Your task to perform on an android device: check out phone information Image 0: 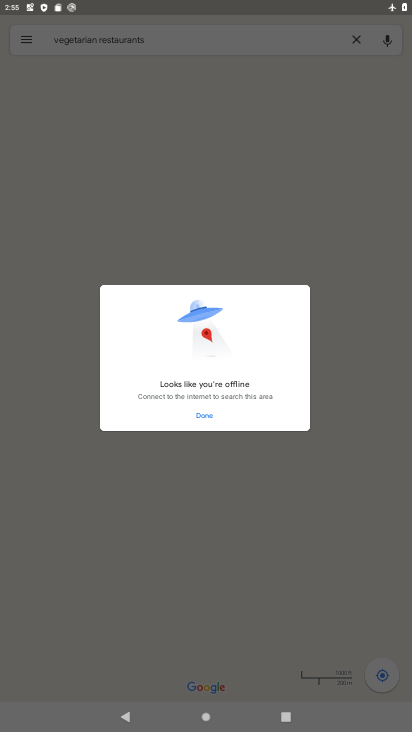
Step 0: press home button
Your task to perform on an android device: check out phone information Image 1: 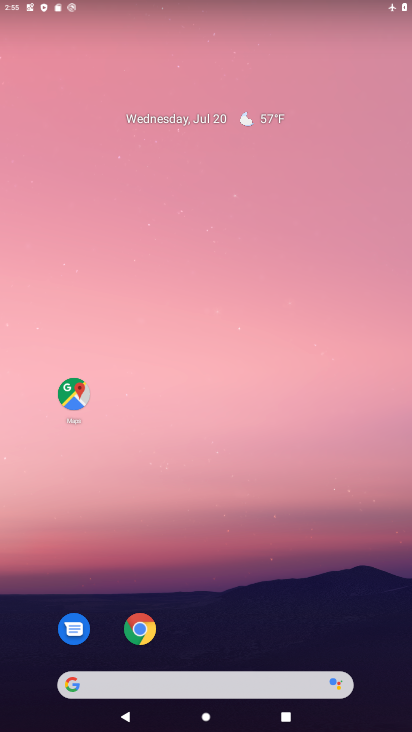
Step 1: drag from (186, 628) to (189, 170)
Your task to perform on an android device: check out phone information Image 2: 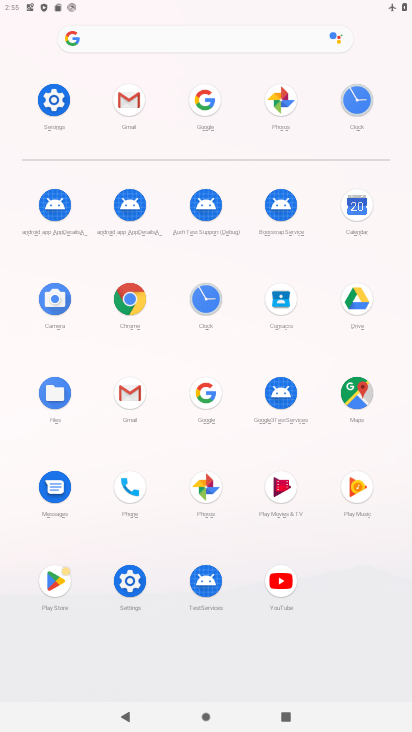
Step 2: click (57, 104)
Your task to perform on an android device: check out phone information Image 3: 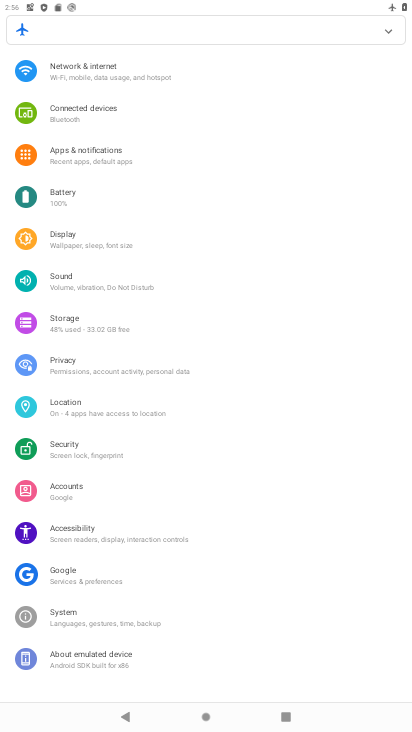
Step 3: click (110, 668)
Your task to perform on an android device: check out phone information Image 4: 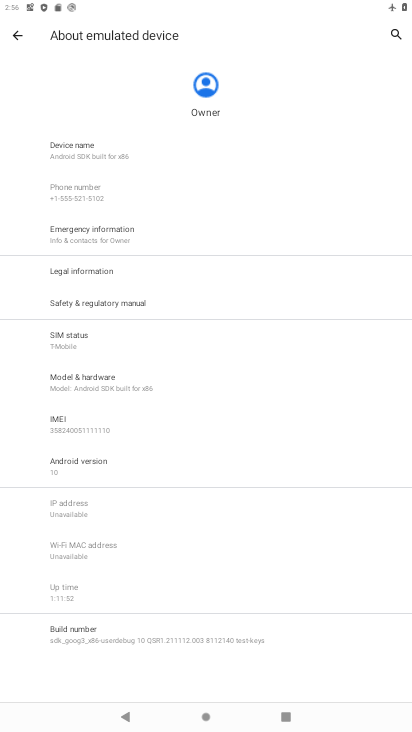
Step 4: task complete